Your task to perform on an android device: empty trash in google photos Image 0: 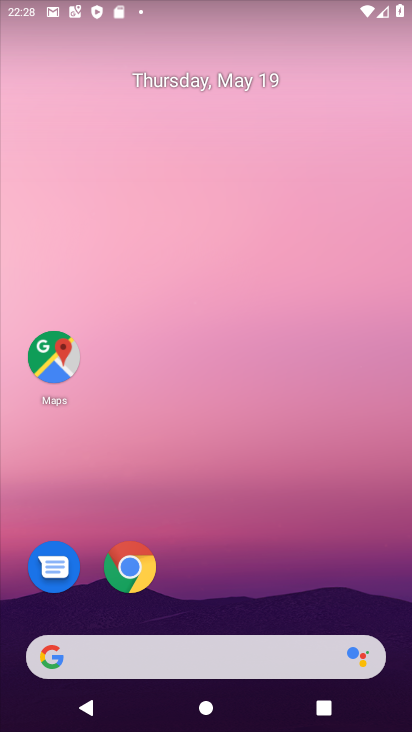
Step 0: drag from (200, 600) to (202, 70)
Your task to perform on an android device: empty trash in google photos Image 1: 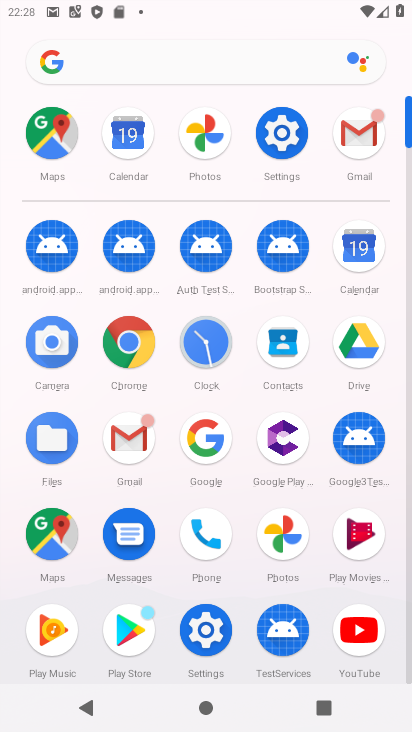
Step 1: click (280, 530)
Your task to perform on an android device: empty trash in google photos Image 2: 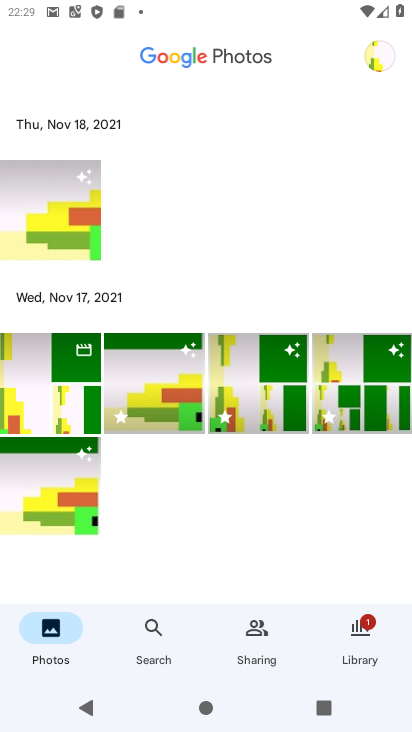
Step 2: click (373, 55)
Your task to perform on an android device: empty trash in google photos Image 3: 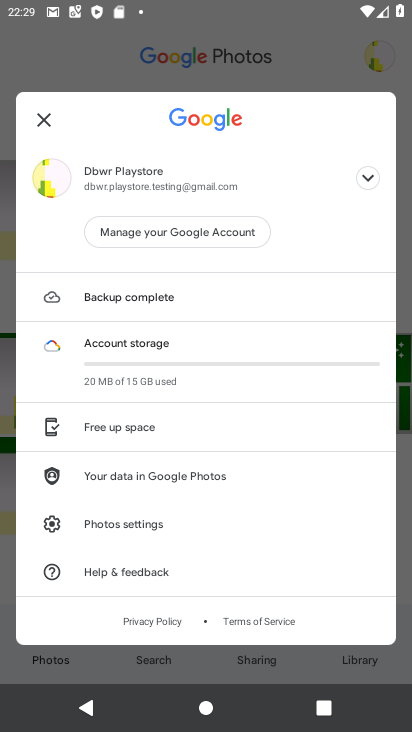
Step 3: click (174, 48)
Your task to perform on an android device: empty trash in google photos Image 4: 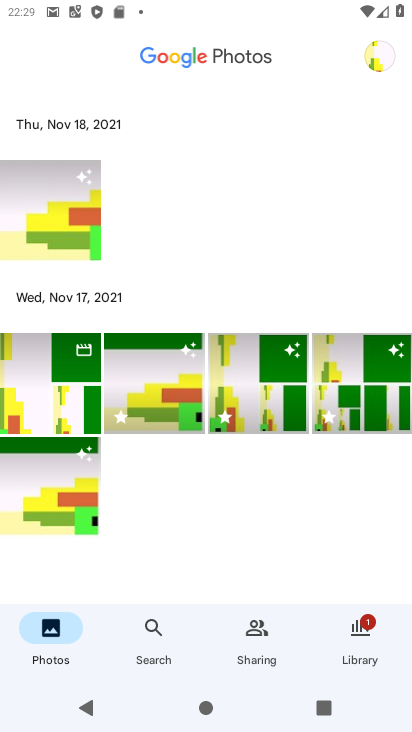
Step 4: click (360, 639)
Your task to perform on an android device: empty trash in google photos Image 5: 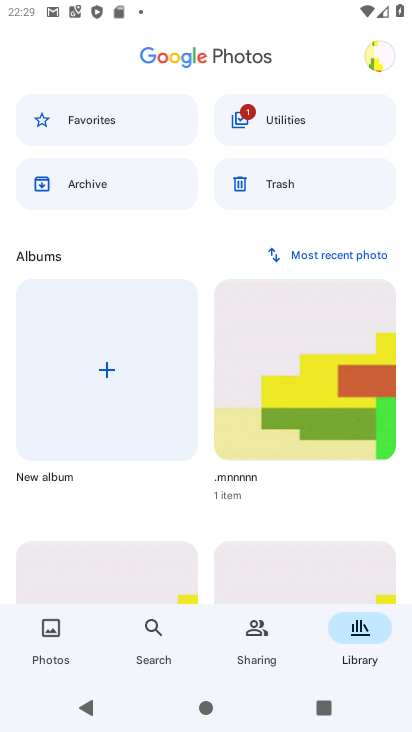
Step 5: click (259, 187)
Your task to perform on an android device: empty trash in google photos Image 6: 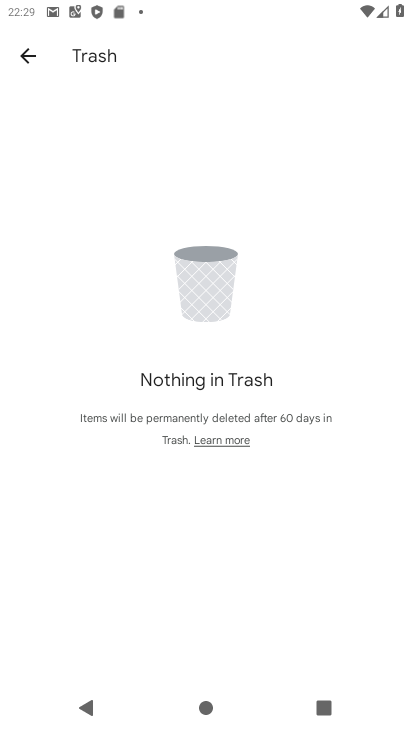
Step 6: task complete